Your task to perform on an android device: toggle airplane mode Image 0: 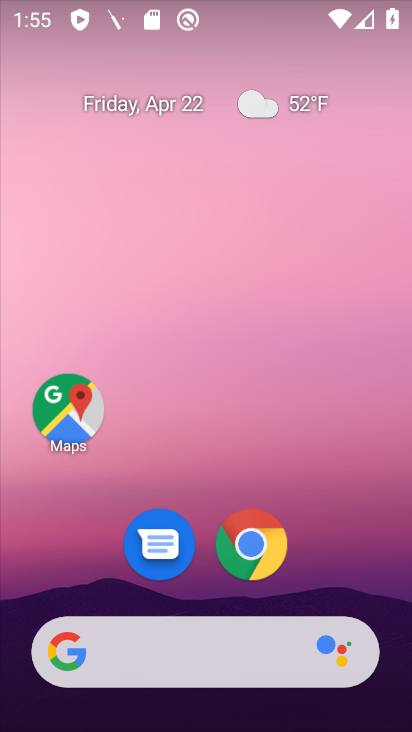
Step 0: drag from (276, 13) to (267, 495)
Your task to perform on an android device: toggle airplane mode Image 1: 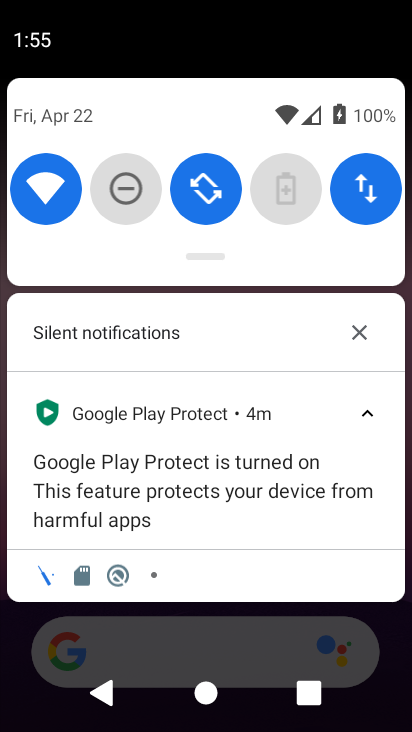
Step 1: drag from (271, 146) to (299, 562)
Your task to perform on an android device: toggle airplane mode Image 2: 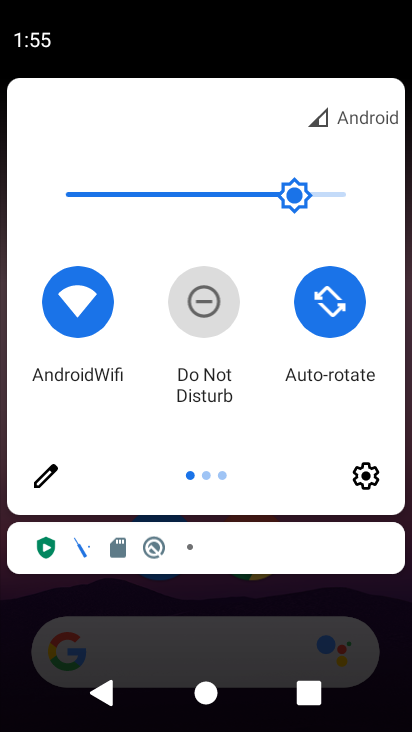
Step 2: drag from (362, 396) to (52, 427)
Your task to perform on an android device: toggle airplane mode Image 3: 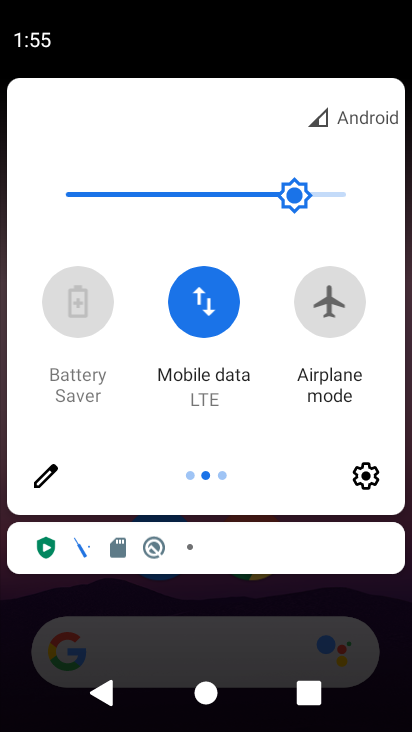
Step 3: click (318, 288)
Your task to perform on an android device: toggle airplane mode Image 4: 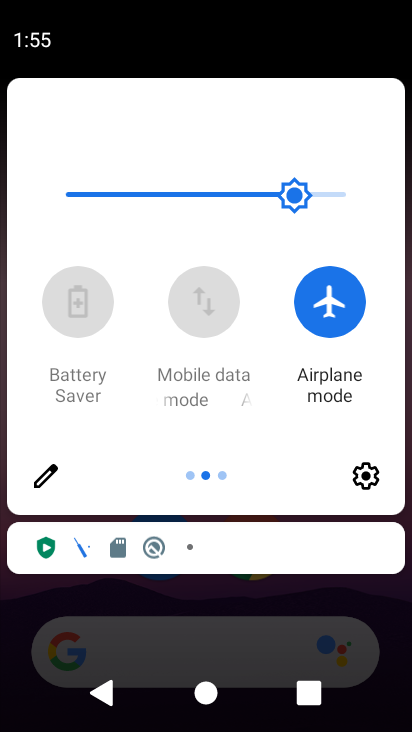
Step 4: click (318, 288)
Your task to perform on an android device: toggle airplane mode Image 5: 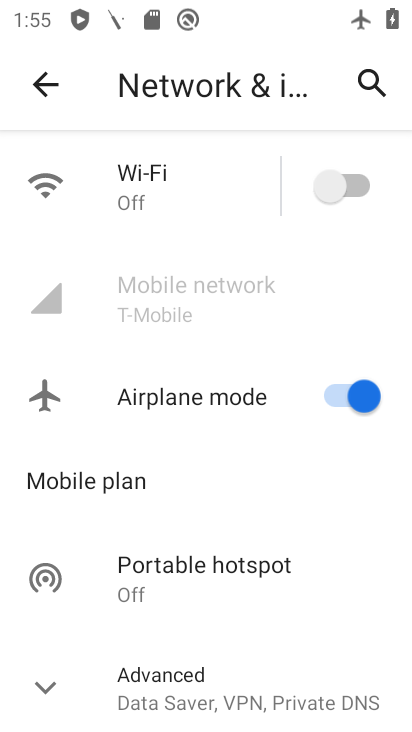
Step 5: click (336, 404)
Your task to perform on an android device: toggle airplane mode Image 6: 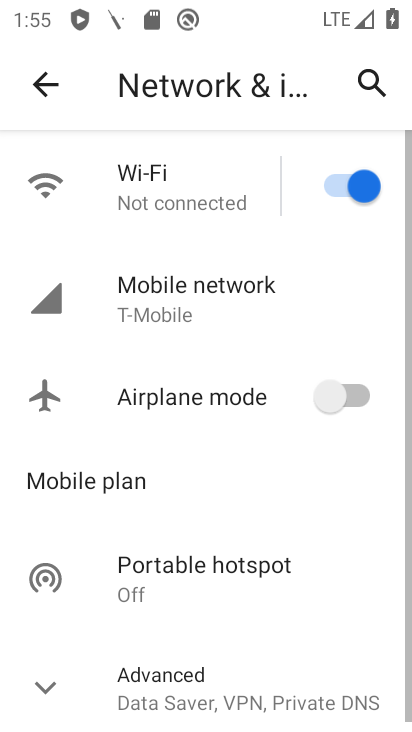
Step 6: click (336, 404)
Your task to perform on an android device: toggle airplane mode Image 7: 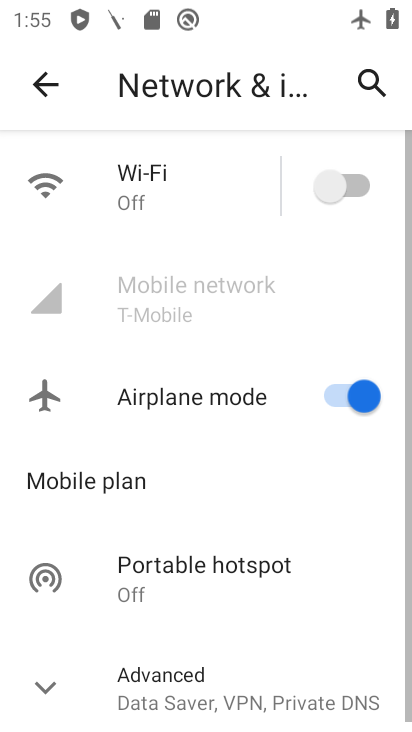
Step 7: task complete